Your task to perform on an android device: Go to calendar. Show me events next week Image 0: 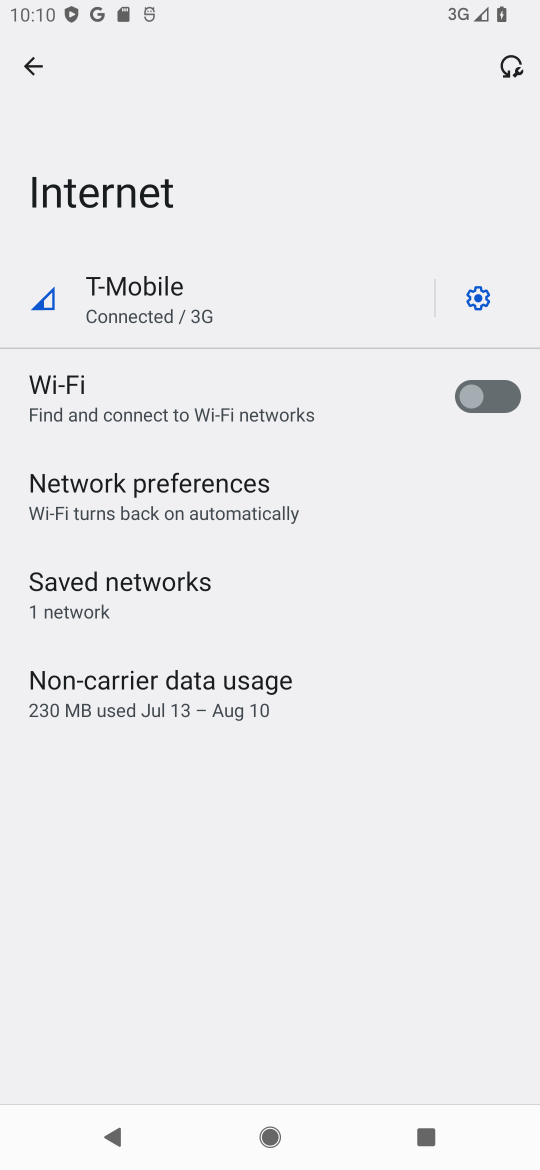
Step 0: press home button
Your task to perform on an android device: Go to calendar. Show me events next week Image 1: 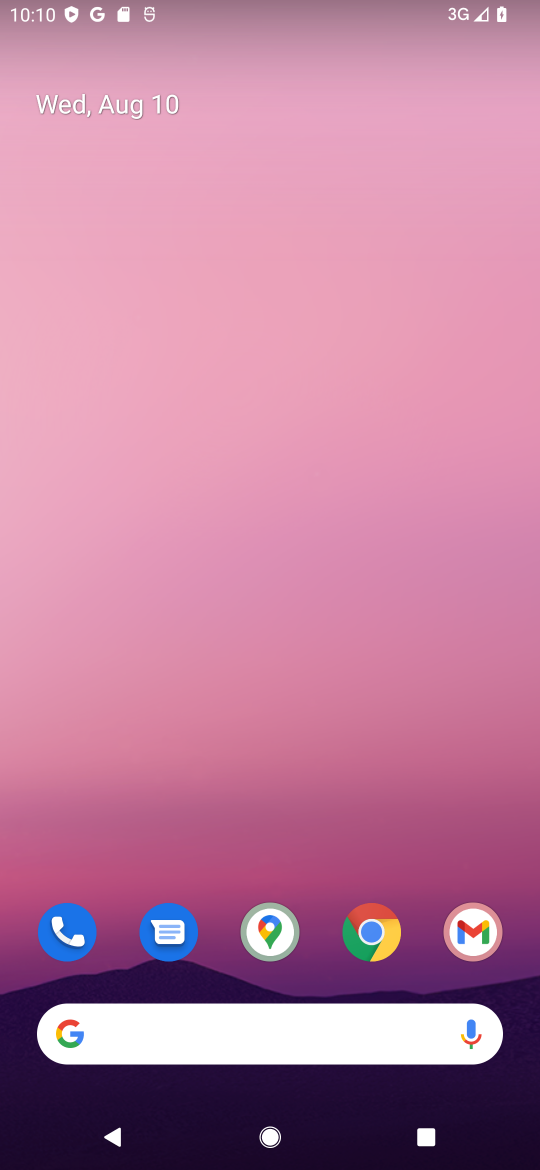
Step 1: drag from (239, 865) to (231, 137)
Your task to perform on an android device: Go to calendar. Show me events next week Image 2: 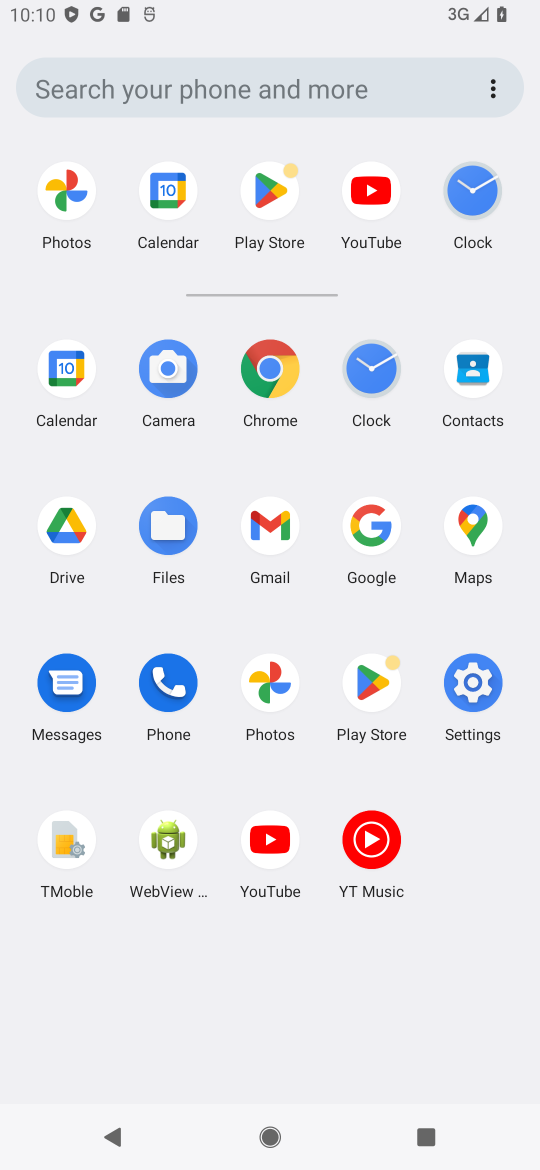
Step 2: click (54, 362)
Your task to perform on an android device: Go to calendar. Show me events next week Image 3: 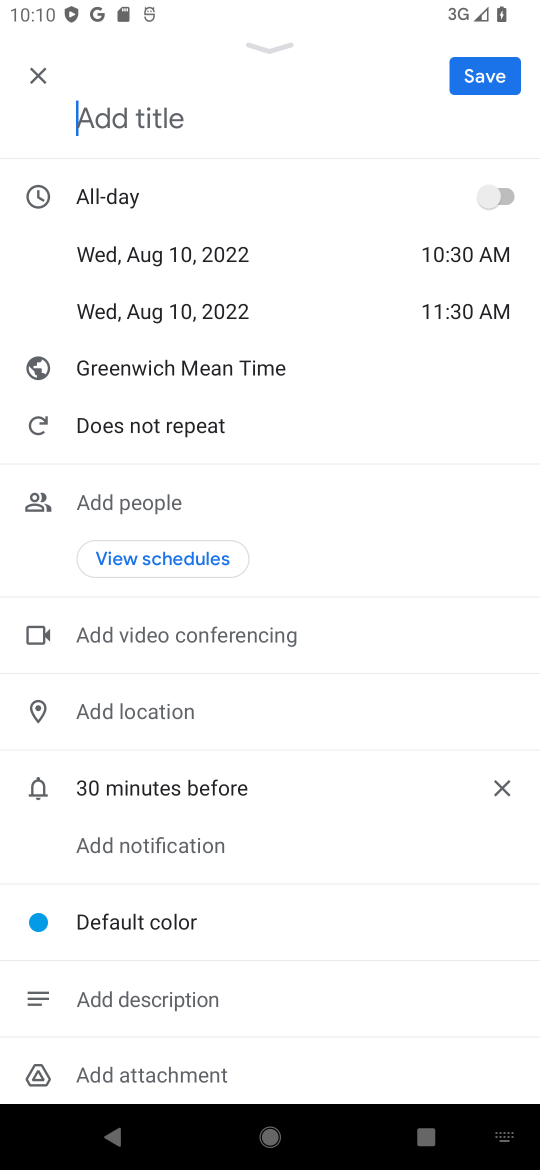
Step 3: click (36, 78)
Your task to perform on an android device: Go to calendar. Show me events next week Image 4: 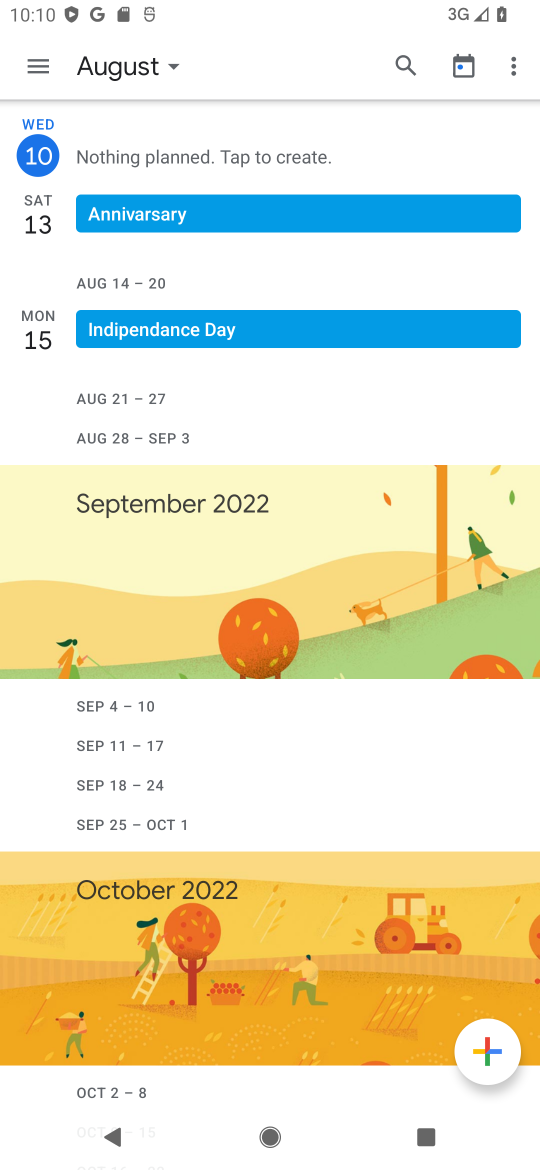
Step 4: click (36, 64)
Your task to perform on an android device: Go to calendar. Show me events next week Image 5: 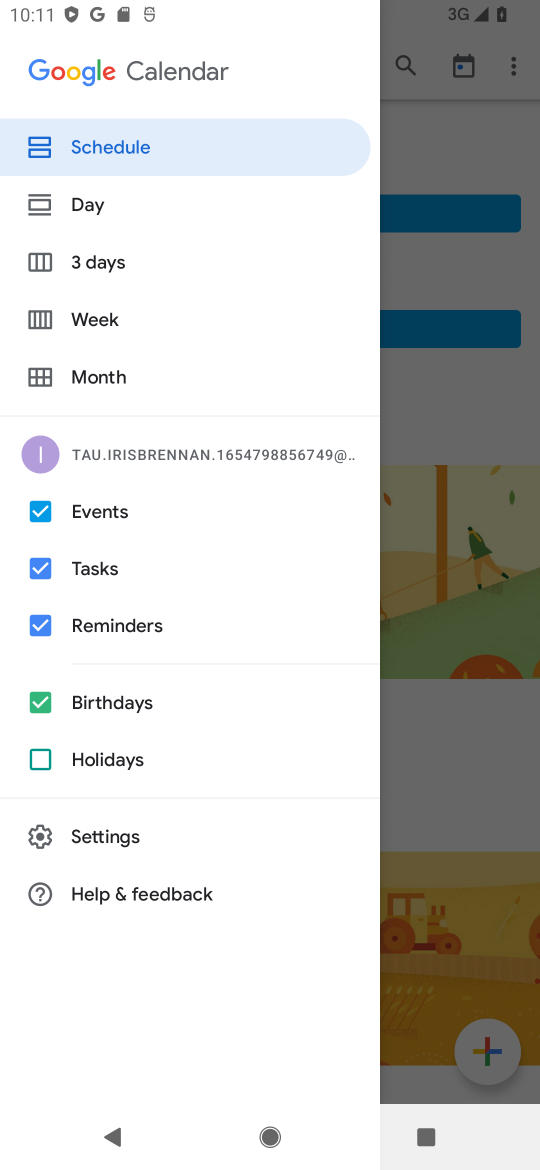
Step 5: click (107, 307)
Your task to perform on an android device: Go to calendar. Show me events next week Image 6: 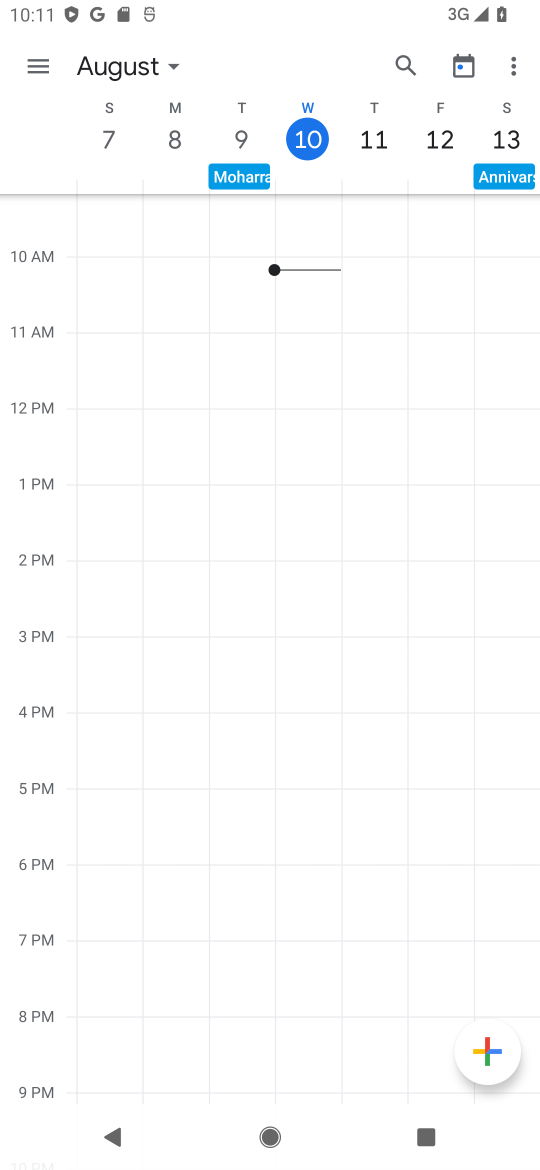
Step 6: click (167, 65)
Your task to perform on an android device: Go to calendar. Show me events next week Image 7: 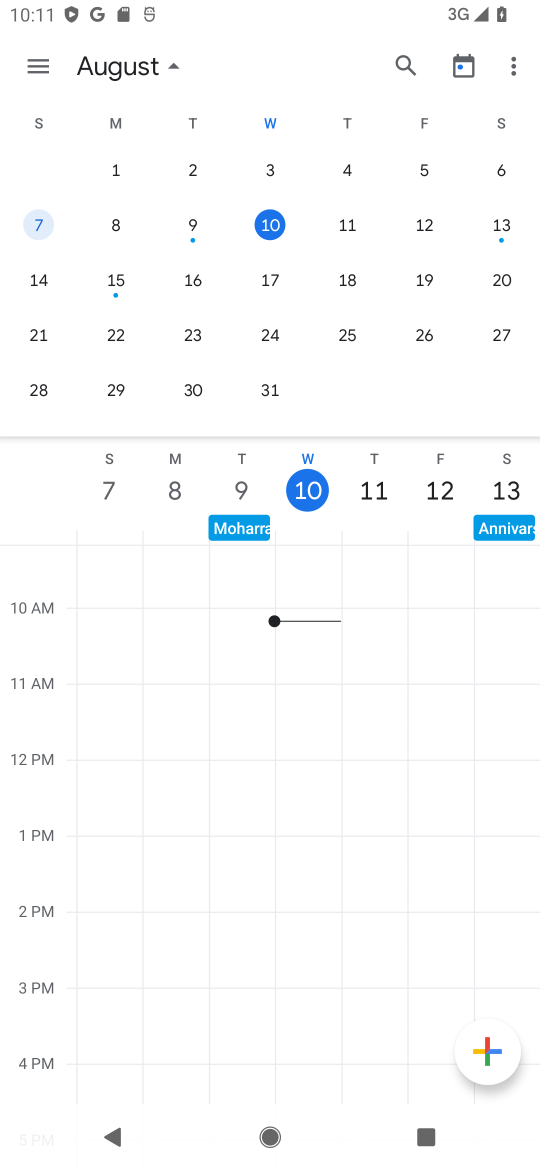
Step 7: click (270, 273)
Your task to perform on an android device: Go to calendar. Show me events next week Image 8: 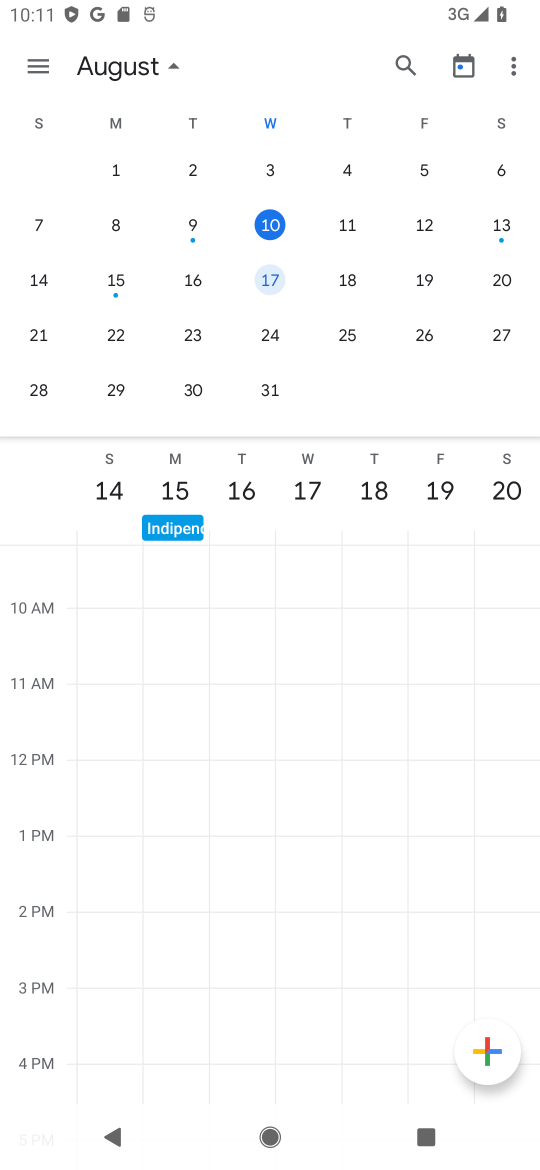
Step 8: task complete